Your task to perform on an android device: open chrome privacy settings Image 0: 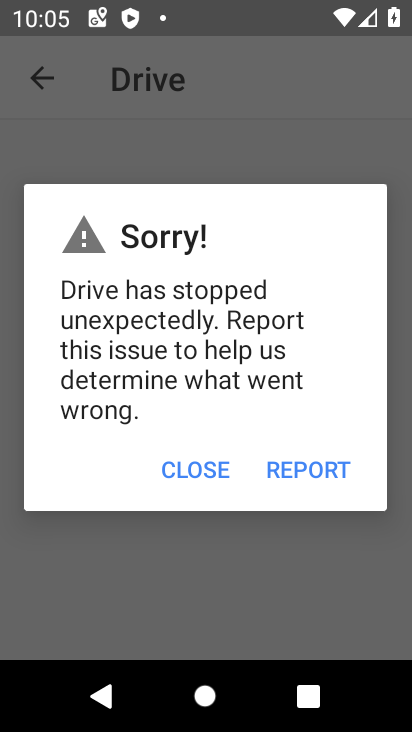
Step 0: press back button
Your task to perform on an android device: open chrome privacy settings Image 1: 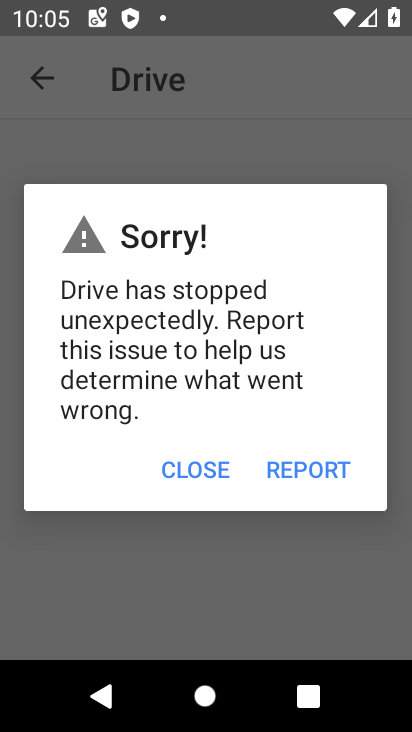
Step 1: press home button
Your task to perform on an android device: open chrome privacy settings Image 2: 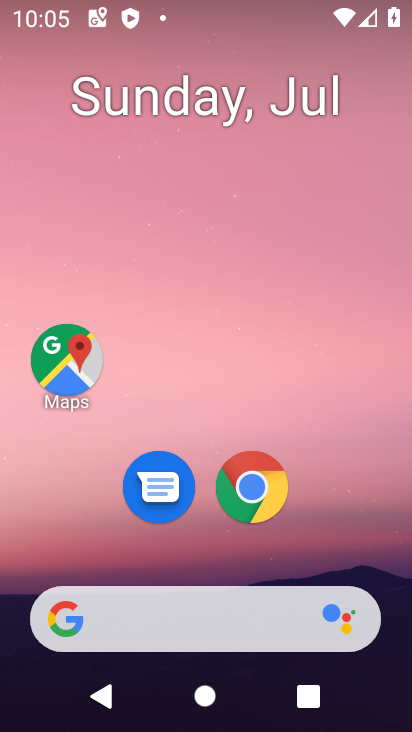
Step 2: click (255, 475)
Your task to perform on an android device: open chrome privacy settings Image 3: 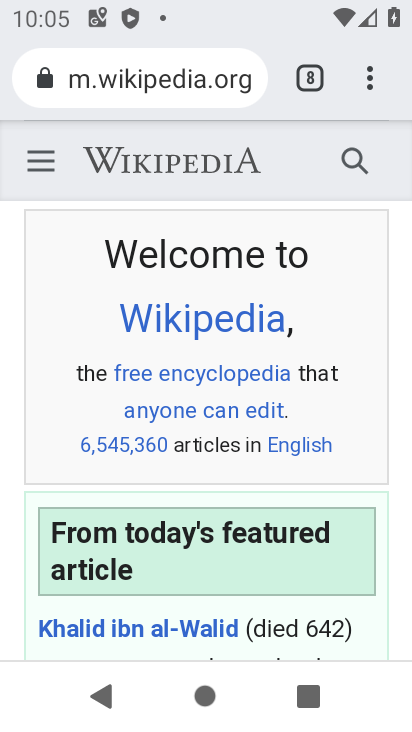
Step 3: drag from (372, 75) to (110, 543)
Your task to perform on an android device: open chrome privacy settings Image 4: 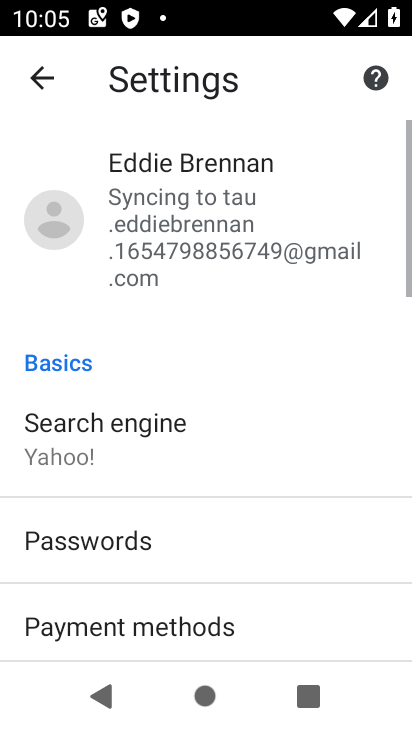
Step 4: drag from (137, 583) to (236, 139)
Your task to perform on an android device: open chrome privacy settings Image 5: 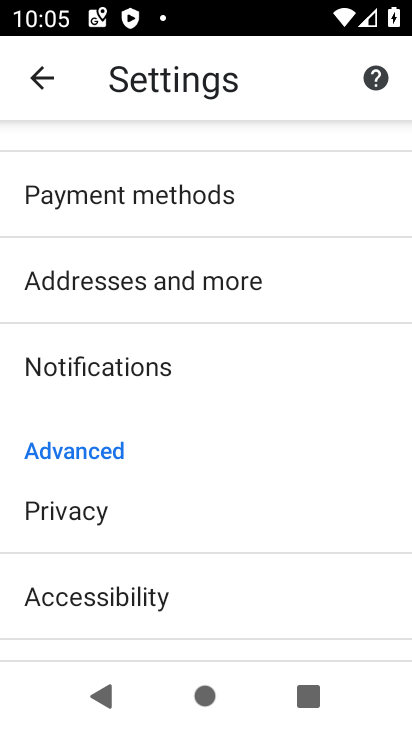
Step 5: click (67, 503)
Your task to perform on an android device: open chrome privacy settings Image 6: 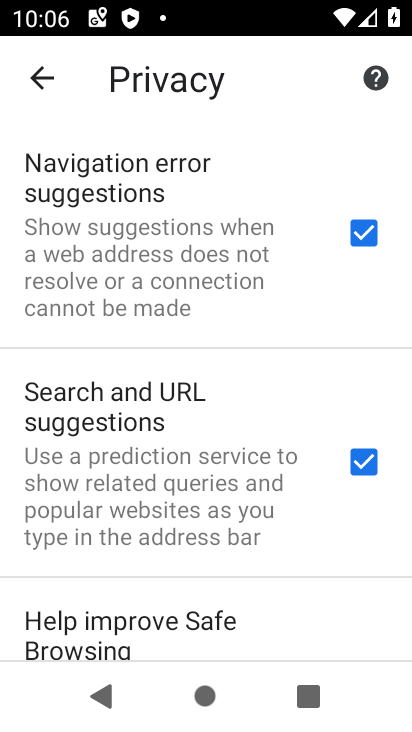
Step 6: task complete